Your task to perform on an android device: Turn on the flashlight Image 0: 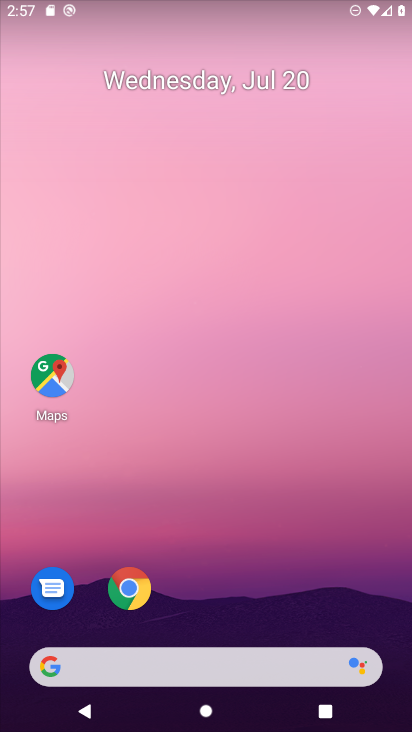
Step 0: drag from (193, 639) to (388, 23)
Your task to perform on an android device: Turn on the flashlight Image 1: 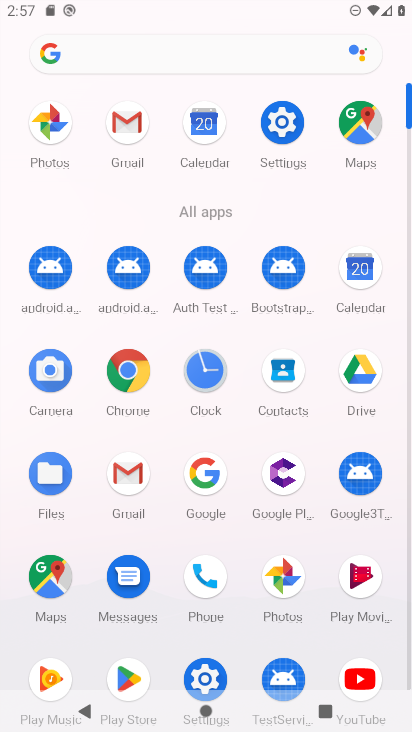
Step 1: click (270, 120)
Your task to perform on an android device: Turn on the flashlight Image 2: 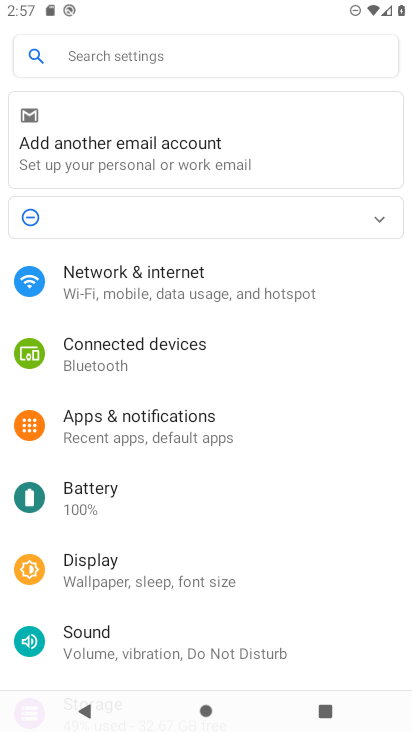
Step 2: task complete